Your task to perform on an android device: Is it going to rain this weekend? Image 0: 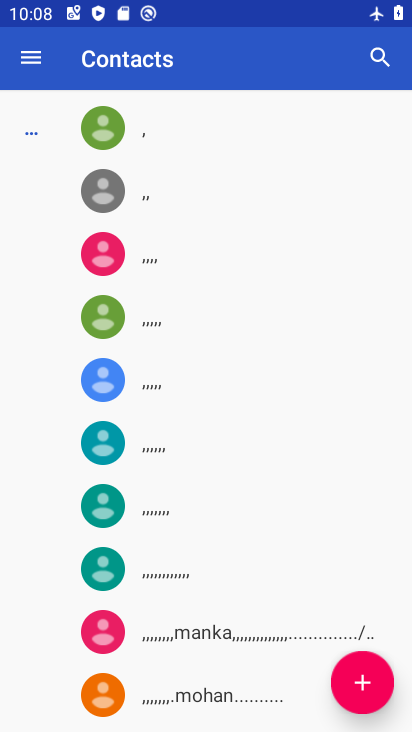
Step 0: press home button
Your task to perform on an android device: Is it going to rain this weekend? Image 1: 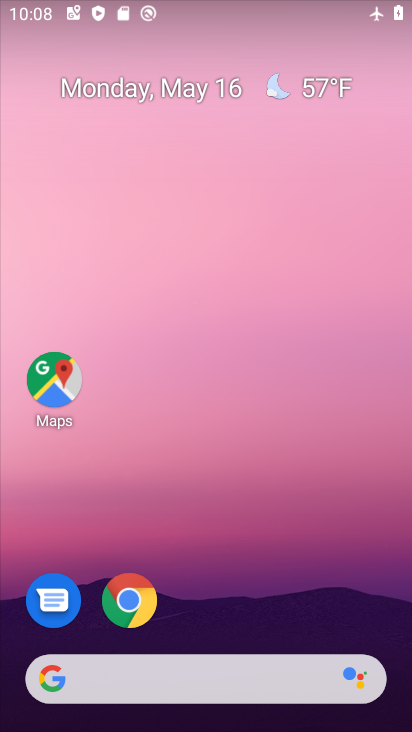
Step 1: drag from (351, 577) to (341, 142)
Your task to perform on an android device: Is it going to rain this weekend? Image 2: 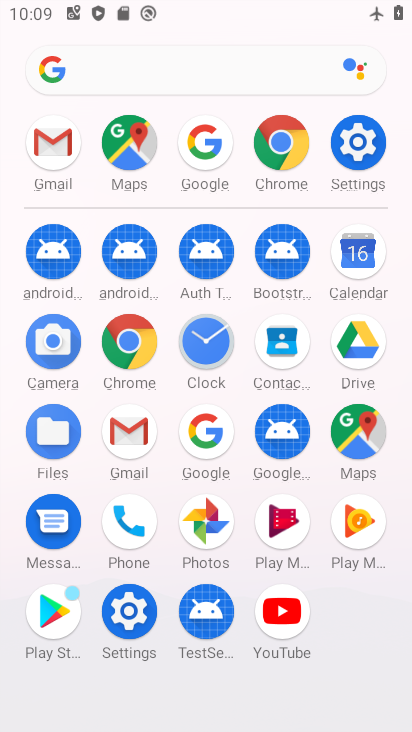
Step 2: click (133, 352)
Your task to perform on an android device: Is it going to rain this weekend? Image 3: 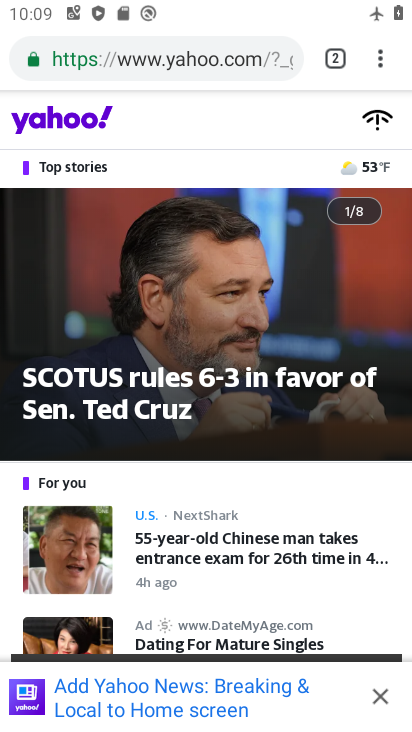
Step 3: click (248, 49)
Your task to perform on an android device: Is it going to rain this weekend? Image 4: 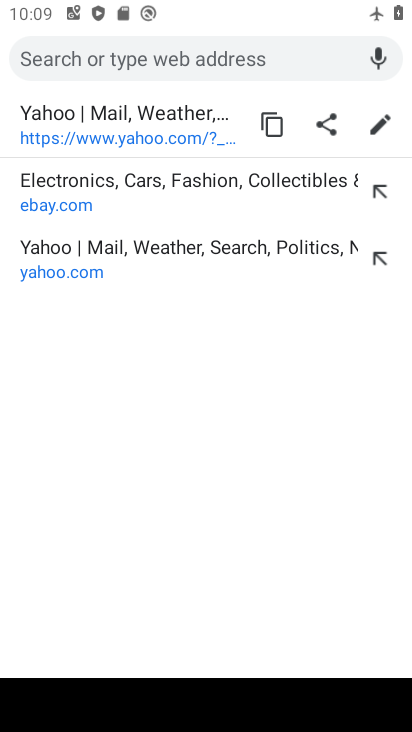
Step 4: type "is it going ti rain this weekend"
Your task to perform on an android device: Is it going to rain this weekend? Image 5: 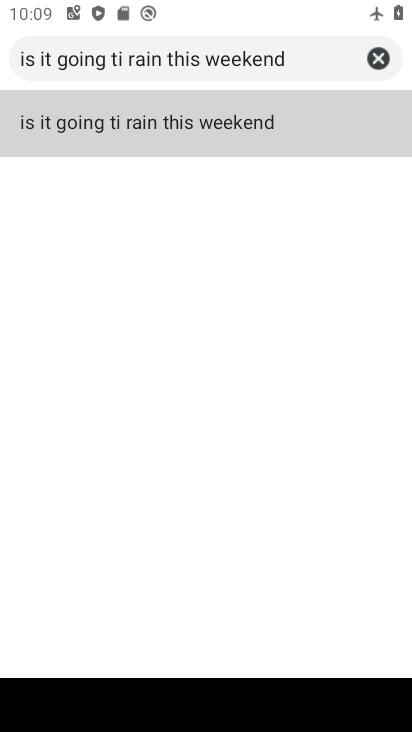
Step 5: click (245, 114)
Your task to perform on an android device: Is it going to rain this weekend? Image 6: 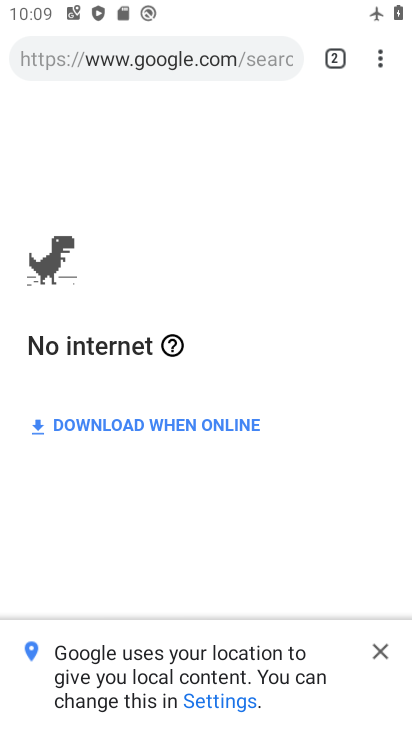
Step 6: task complete